Your task to perform on an android device: empty trash in the gmail app Image 0: 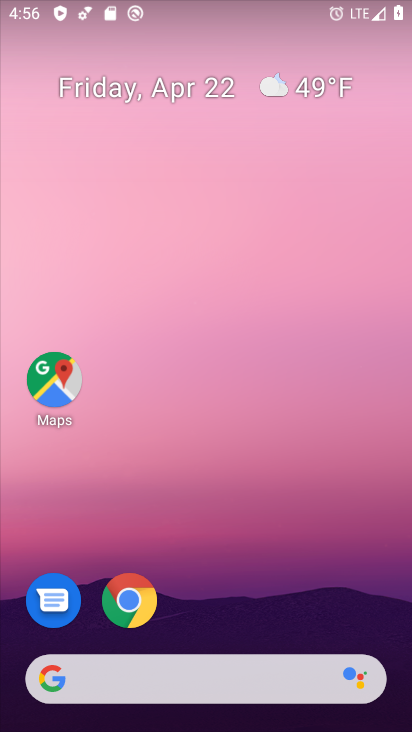
Step 0: drag from (232, 542) to (244, 86)
Your task to perform on an android device: empty trash in the gmail app Image 1: 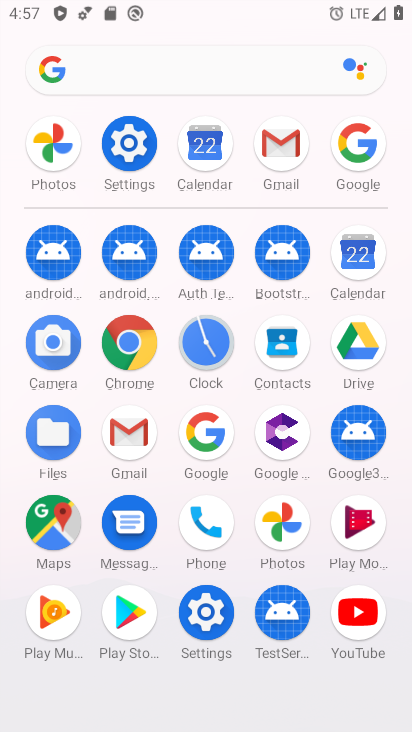
Step 1: click (279, 143)
Your task to perform on an android device: empty trash in the gmail app Image 2: 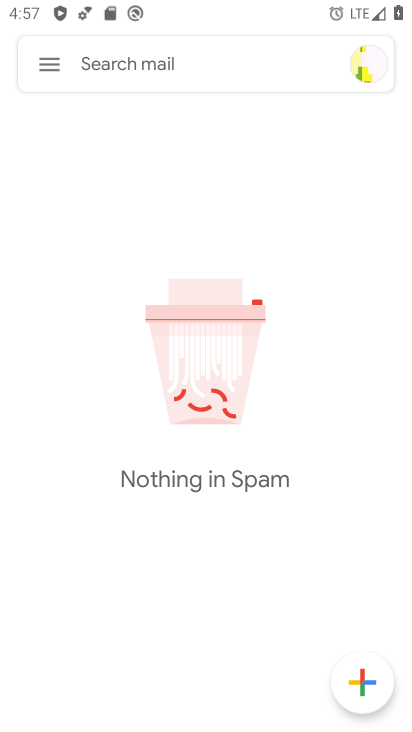
Step 2: click (50, 67)
Your task to perform on an android device: empty trash in the gmail app Image 3: 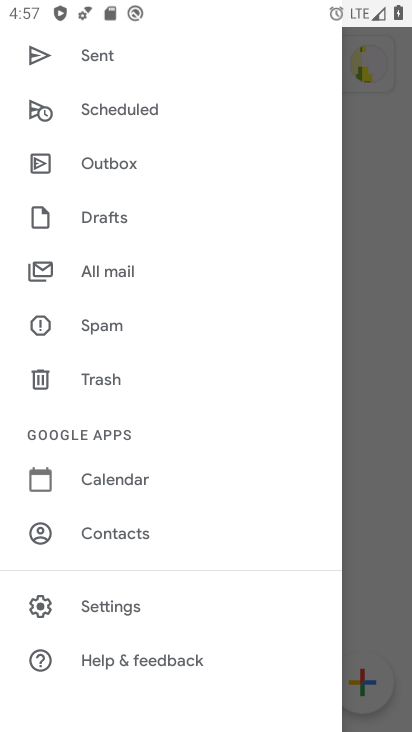
Step 3: click (101, 376)
Your task to perform on an android device: empty trash in the gmail app Image 4: 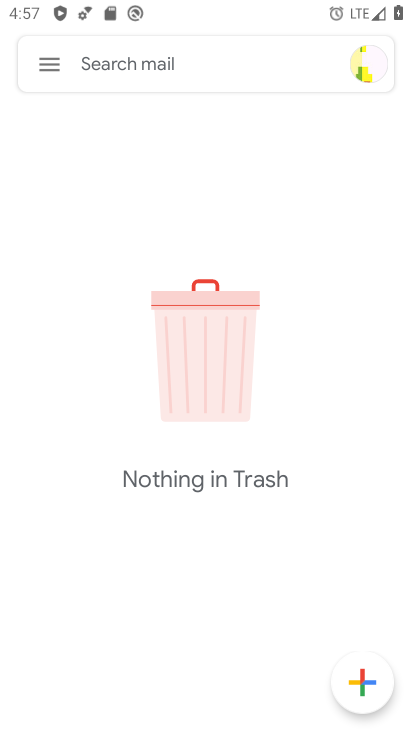
Step 4: task complete